Your task to perform on an android device: Open network settings Image 0: 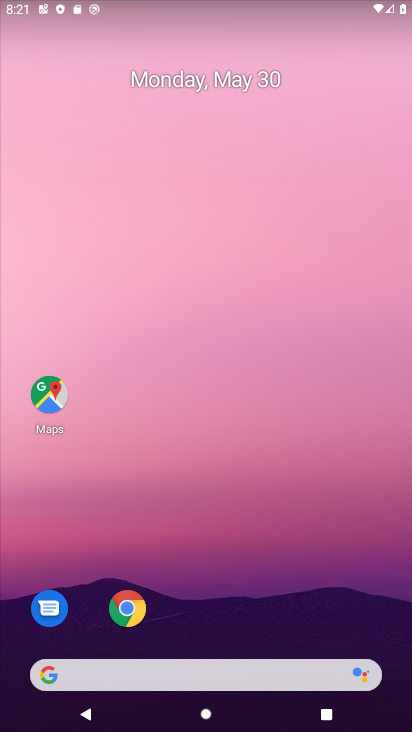
Step 0: click (53, 396)
Your task to perform on an android device: Open network settings Image 1: 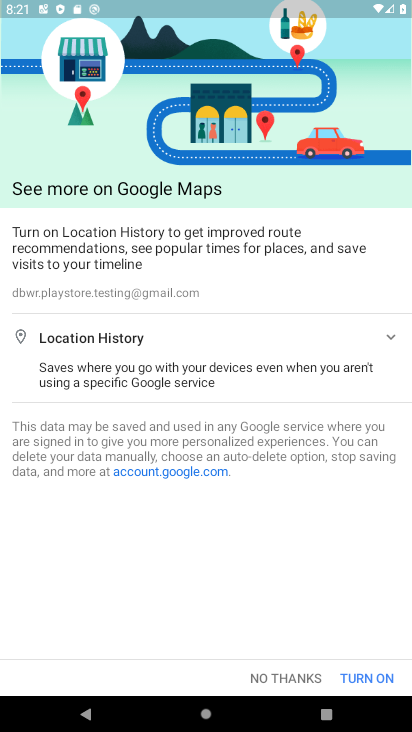
Step 1: click (351, 676)
Your task to perform on an android device: Open network settings Image 2: 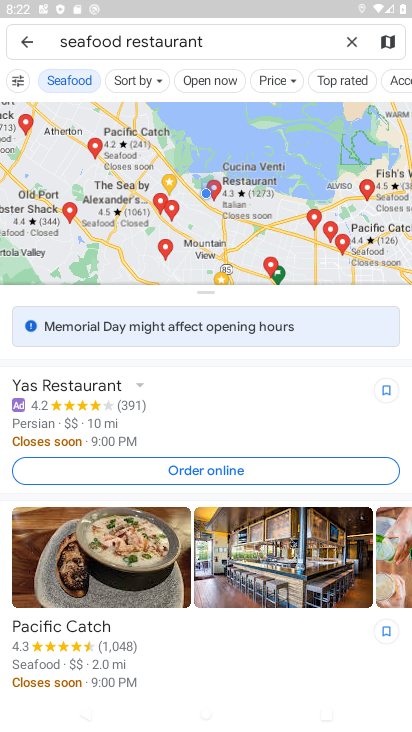
Step 2: click (351, 40)
Your task to perform on an android device: Open network settings Image 3: 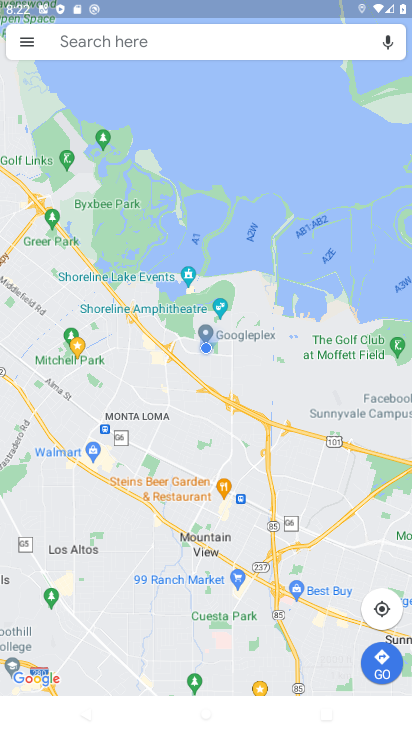
Step 3: press back button
Your task to perform on an android device: Open network settings Image 4: 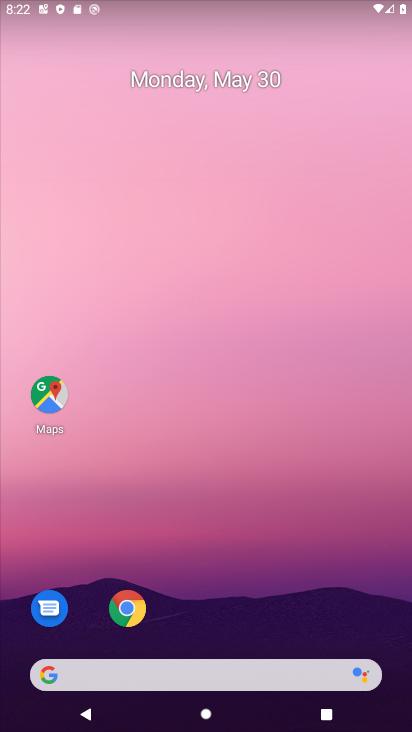
Step 4: drag from (399, 713) to (352, 195)
Your task to perform on an android device: Open network settings Image 5: 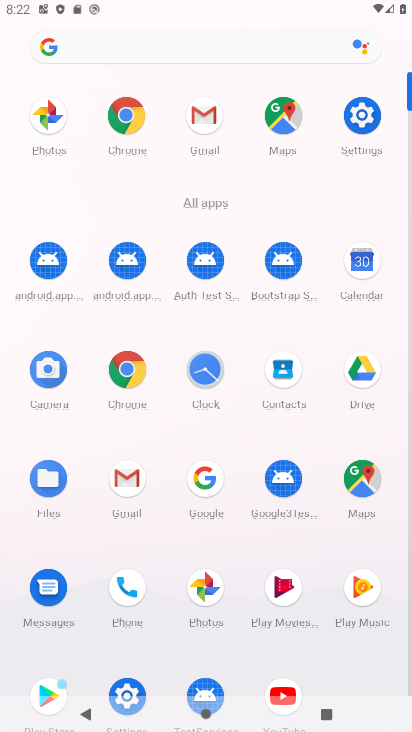
Step 5: click (364, 128)
Your task to perform on an android device: Open network settings Image 6: 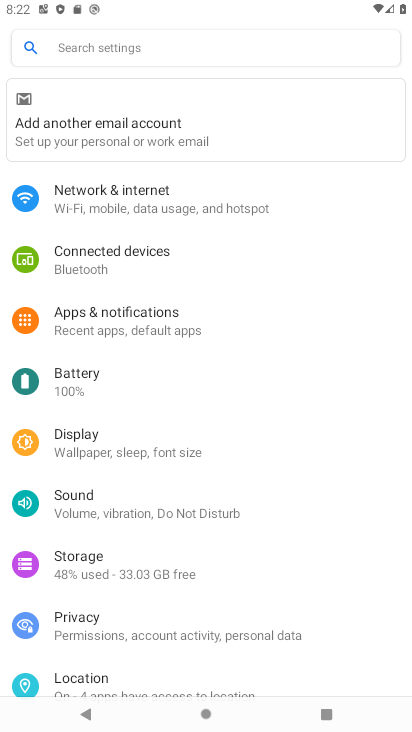
Step 6: drag from (255, 673) to (284, 381)
Your task to perform on an android device: Open network settings Image 7: 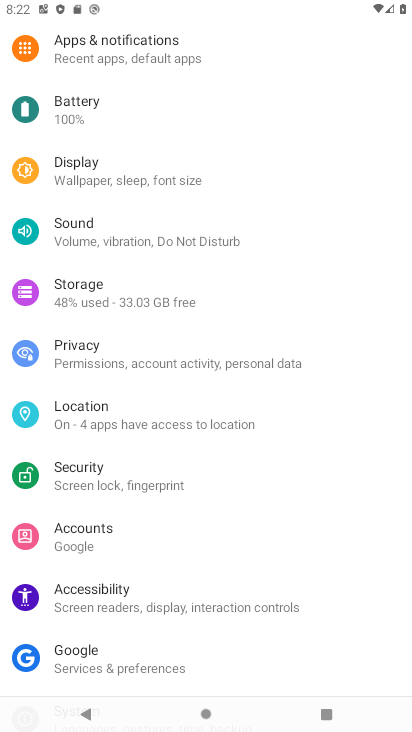
Step 7: drag from (291, 101) to (322, 581)
Your task to perform on an android device: Open network settings Image 8: 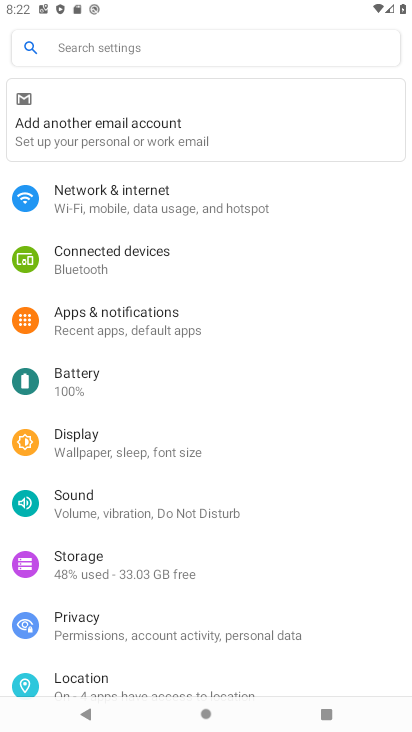
Step 8: click (126, 195)
Your task to perform on an android device: Open network settings Image 9: 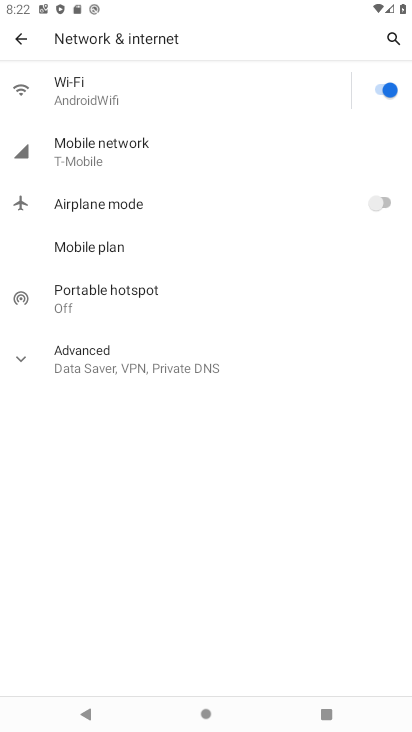
Step 9: click (80, 146)
Your task to perform on an android device: Open network settings Image 10: 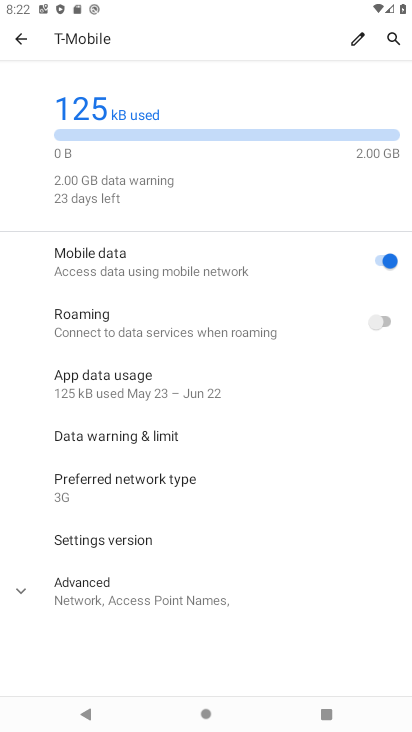
Step 10: drag from (276, 586) to (284, 267)
Your task to perform on an android device: Open network settings Image 11: 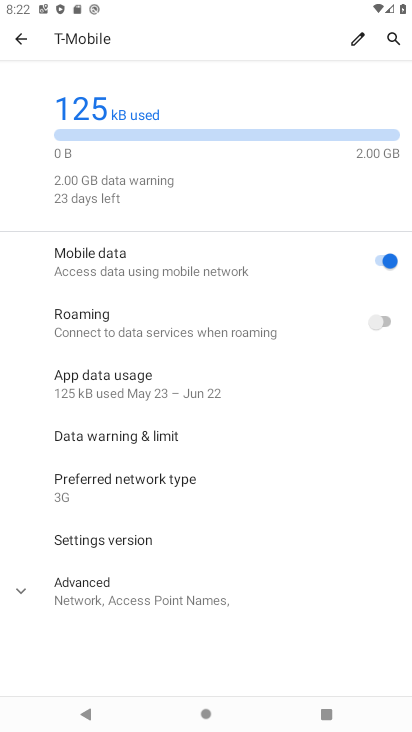
Step 11: click (22, 584)
Your task to perform on an android device: Open network settings Image 12: 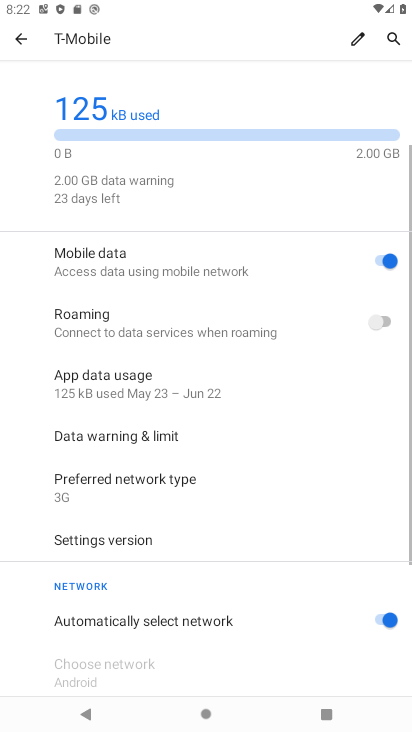
Step 12: task complete